Your task to perform on an android device: open wifi settings Image 0: 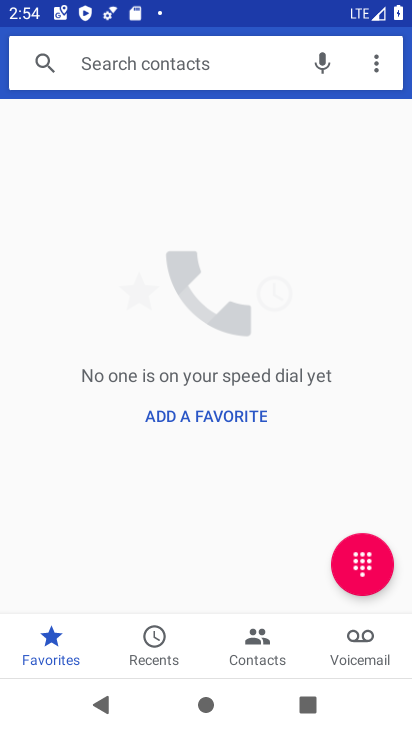
Step 0: press home button
Your task to perform on an android device: open wifi settings Image 1: 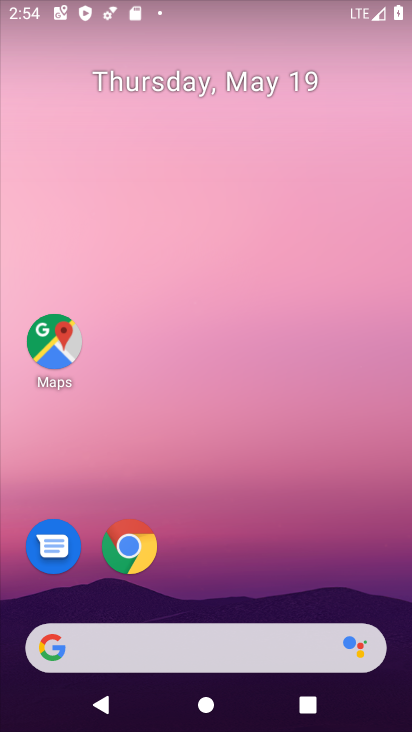
Step 1: drag from (166, 562) to (233, 101)
Your task to perform on an android device: open wifi settings Image 2: 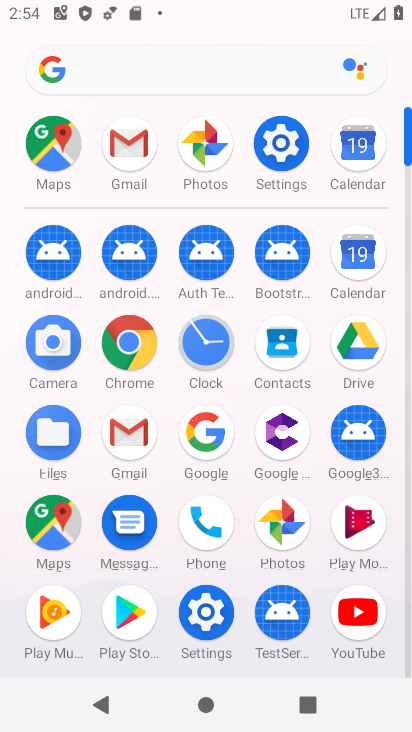
Step 2: click (274, 134)
Your task to perform on an android device: open wifi settings Image 3: 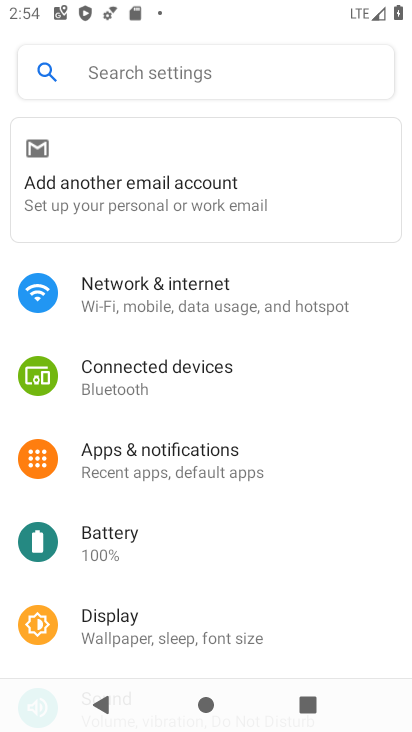
Step 3: click (224, 305)
Your task to perform on an android device: open wifi settings Image 4: 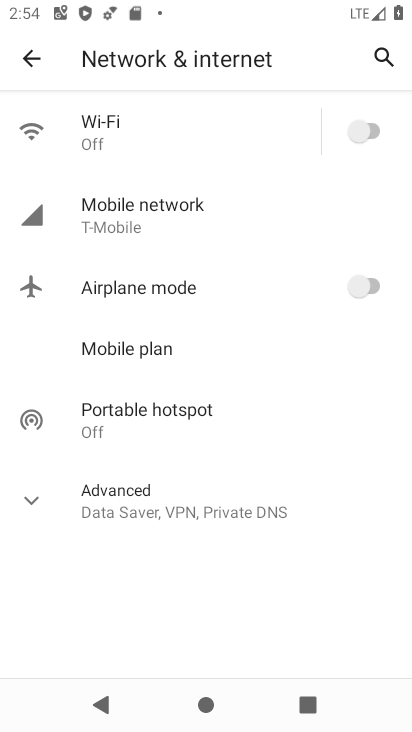
Step 4: click (97, 141)
Your task to perform on an android device: open wifi settings Image 5: 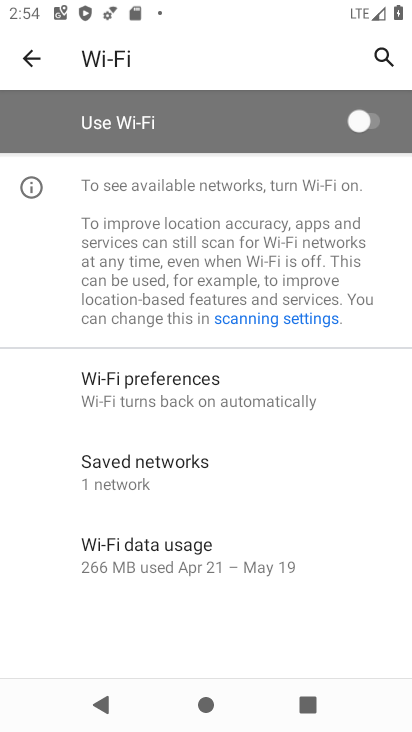
Step 5: task complete